Your task to perform on an android device: Open display settings Image 0: 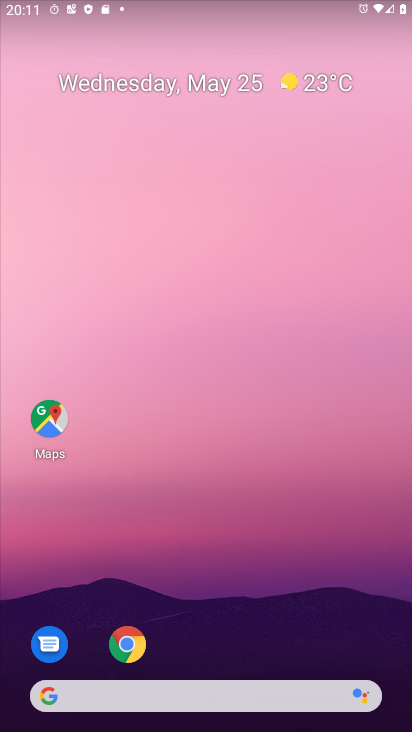
Step 0: drag from (186, 711) to (178, 146)
Your task to perform on an android device: Open display settings Image 1: 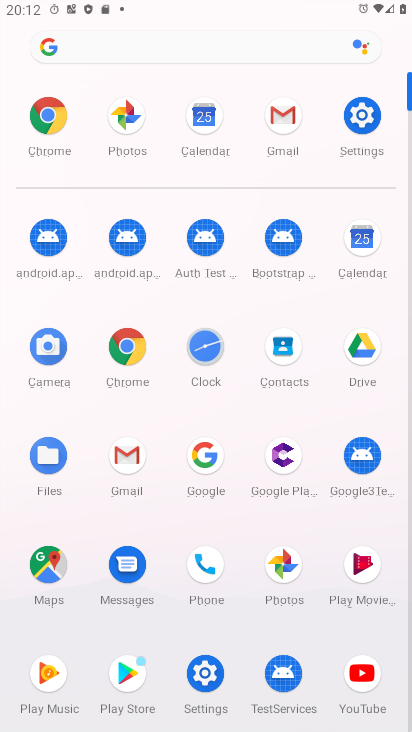
Step 1: click (360, 117)
Your task to perform on an android device: Open display settings Image 2: 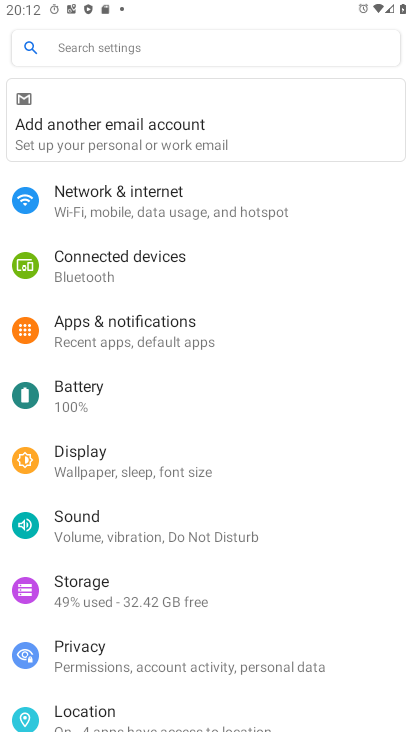
Step 2: click (72, 457)
Your task to perform on an android device: Open display settings Image 3: 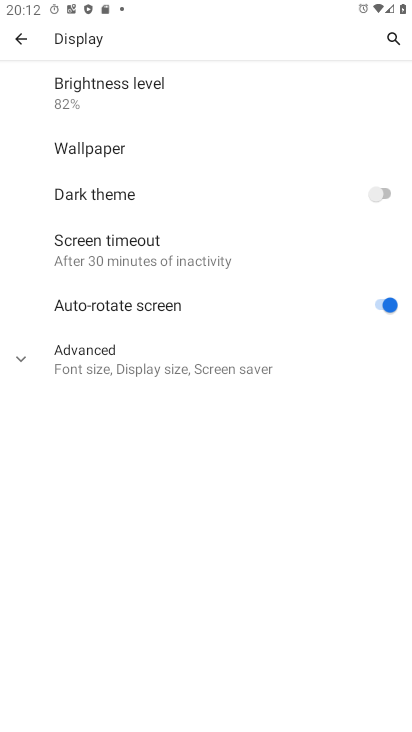
Step 3: task complete